Your task to perform on an android device: turn on javascript in the chrome app Image 0: 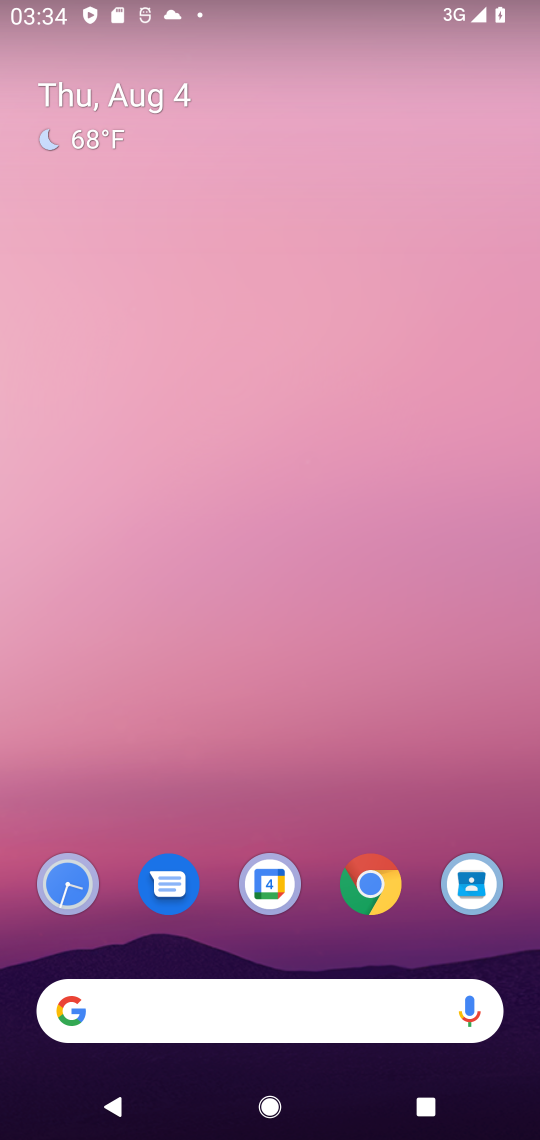
Step 0: press home button
Your task to perform on an android device: turn on javascript in the chrome app Image 1: 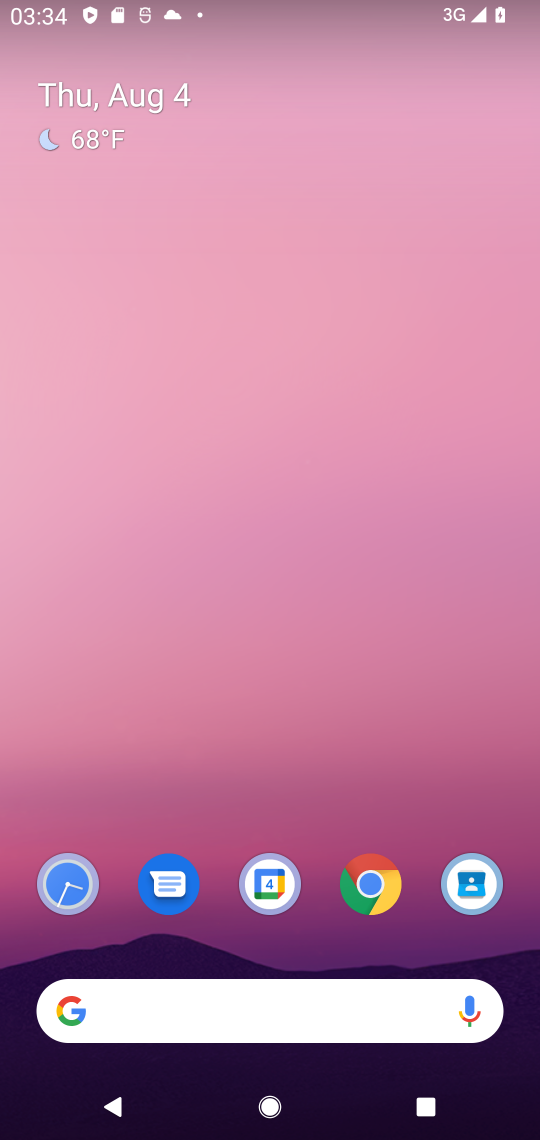
Step 1: drag from (304, 925) to (284, 367)
Your task to perform on an android device: turn on javascript in the chrome app Image 2: 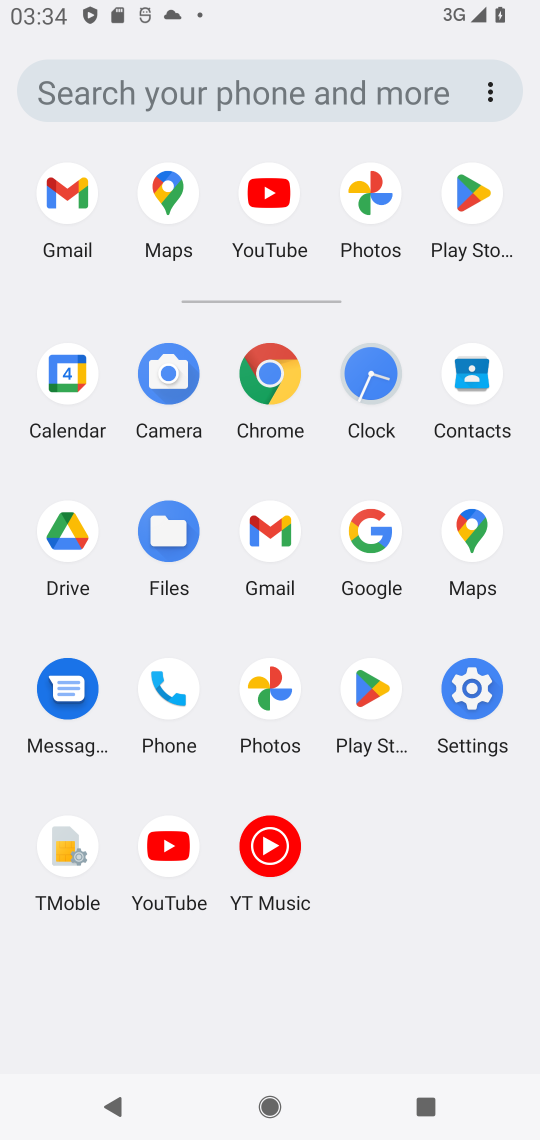
Step 2: click (273, 392)
Your task to perform on an android device: turn on javascript in the chrome app Image 3: 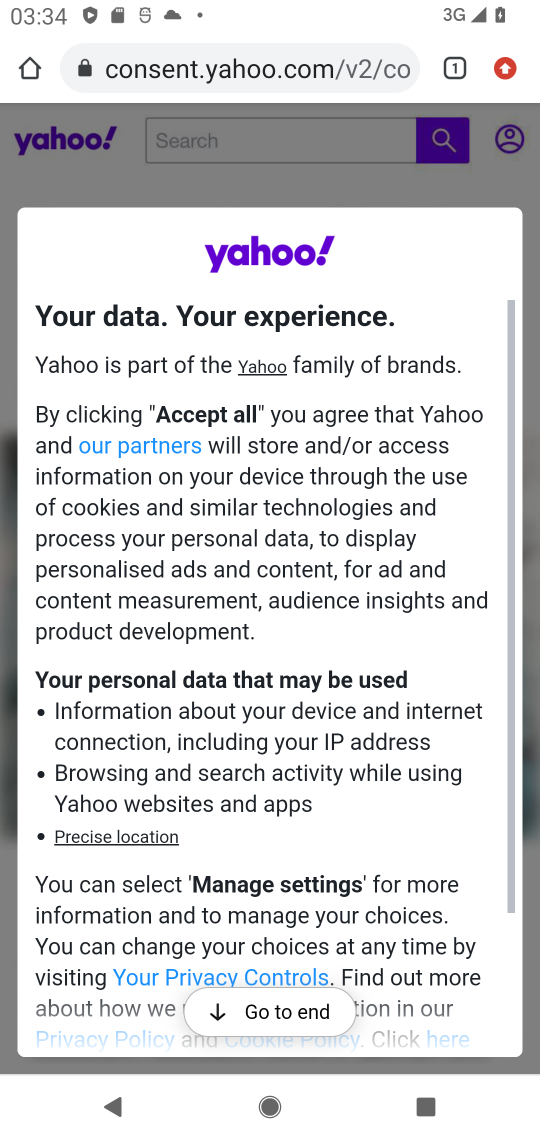
Step 3: click (500, 63)
Your task to perform on an android device: turn on javascript in the chrome app Image 4: 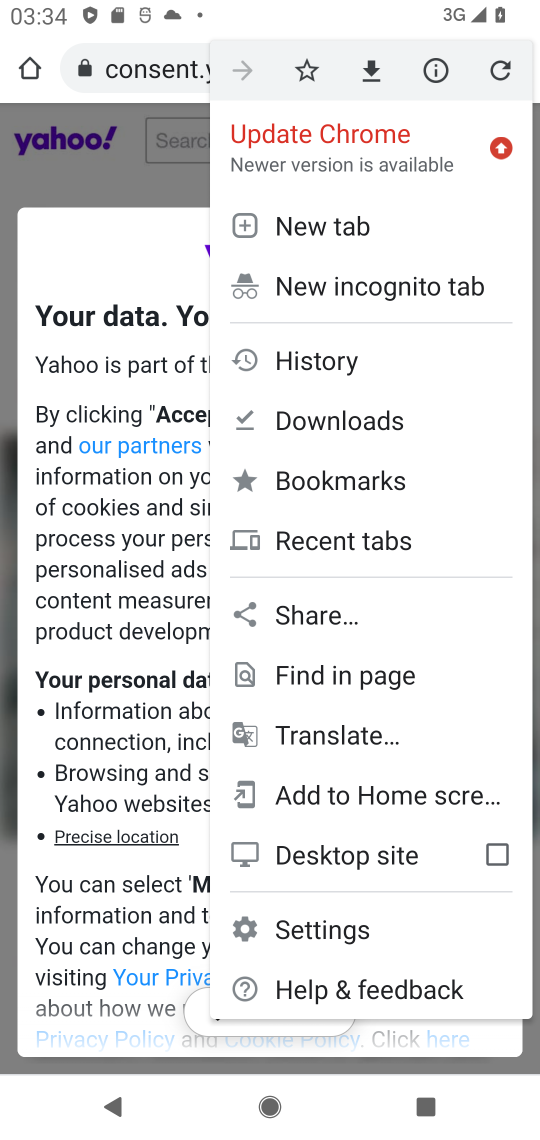
Step 4: click (360, 924)
Your task to perform on an android device: turn on javascript in the chrome app Image 5: 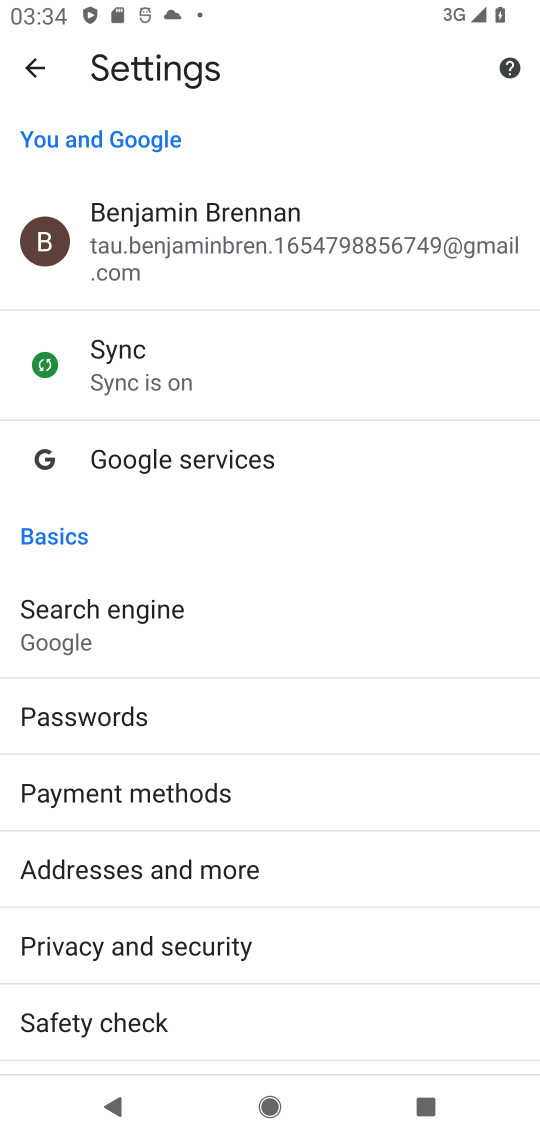
Step 5: drag from (407, 974) to (404, 847)
Your task to perform on an android device: turn on javascript in the chrome app Image 6: 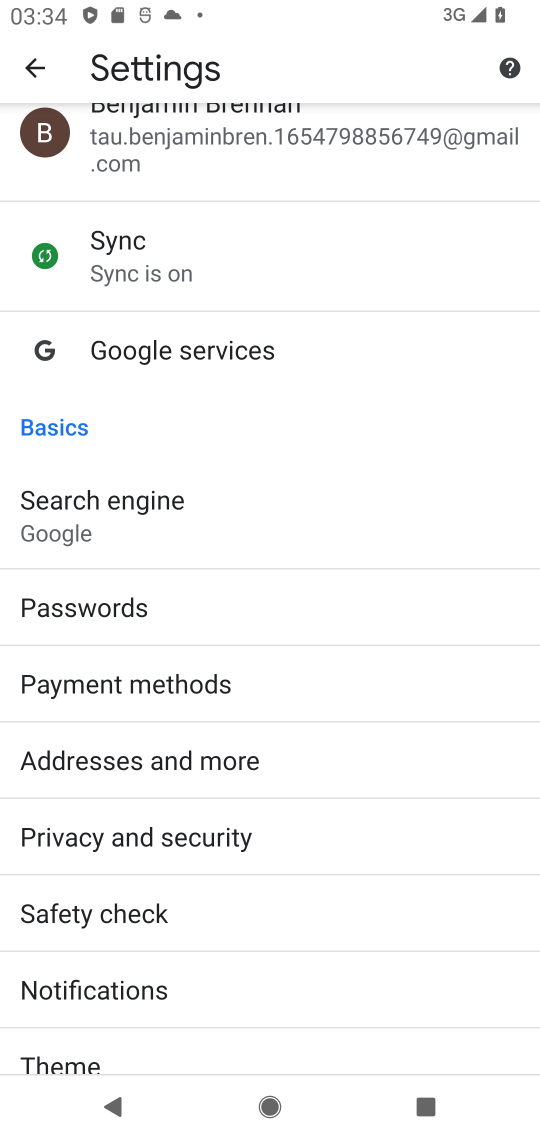
Step 6: drag from (404, 999) to (394, 802)
Your task to perform on an android device: turn on javascript in the chrome app Image 7: 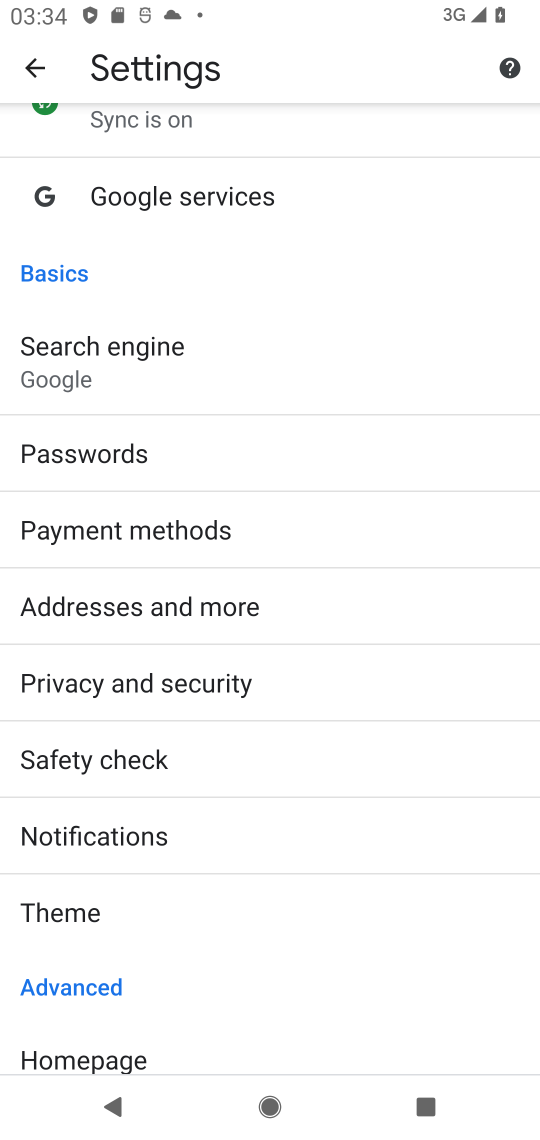
Step 7: click (387, 873)
Your task to perform on an android device: turn on javascript in the chrome app Image 8: 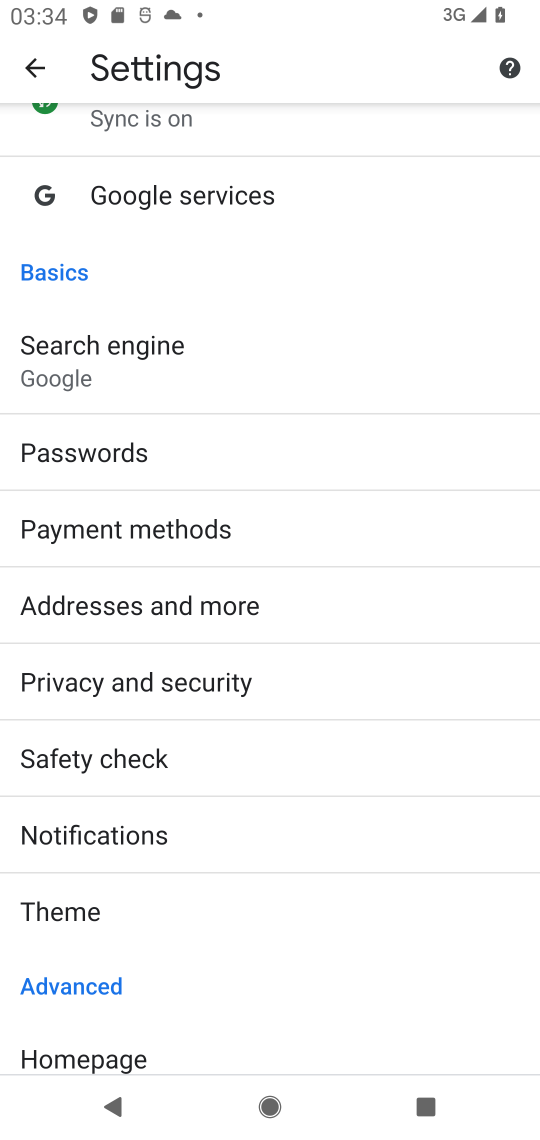
Step 8: drag from (387, 995) to (413, 719)
Your task to perform on an android device: turn on javascript in the chrome app Image 9: 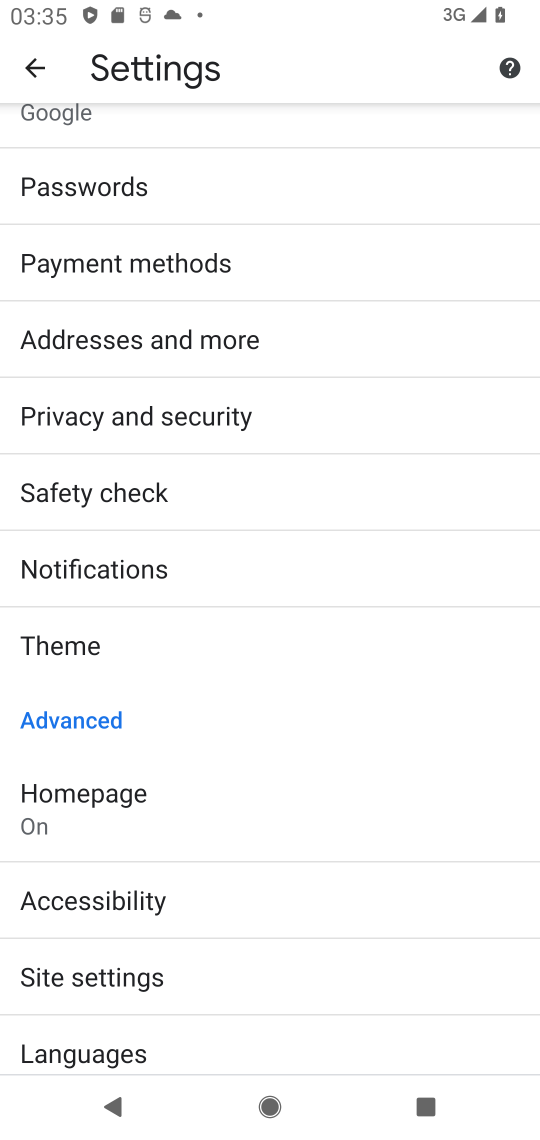
Step 9: click (322, 980)
Your task to perform on an android device: turn on javascript in the chrome app Image 10: 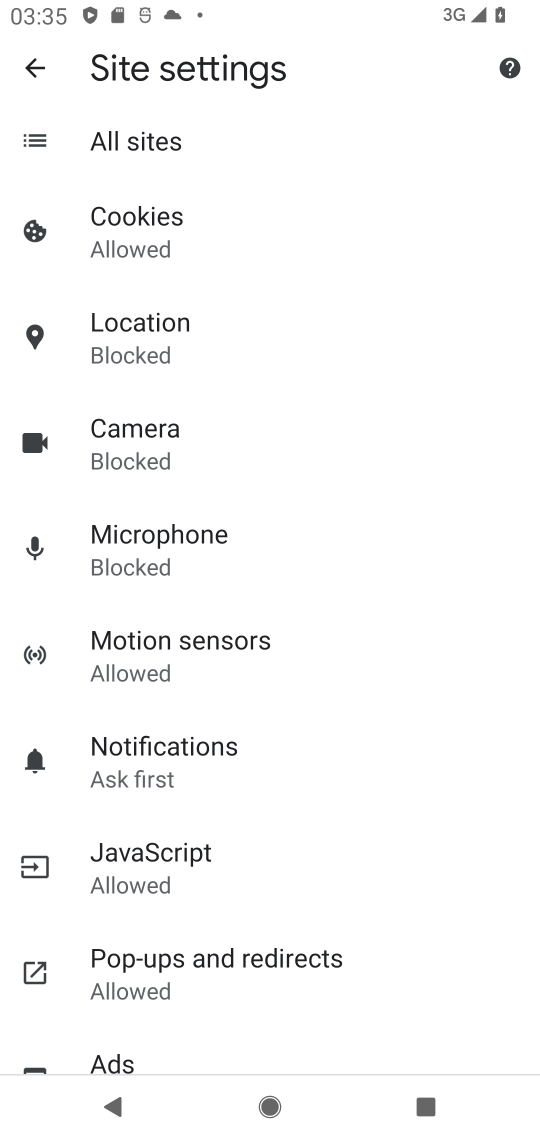
Step 10: click (283, 865)
Your task to perform on an android device: turn on javascript in the chrome app Image 11: 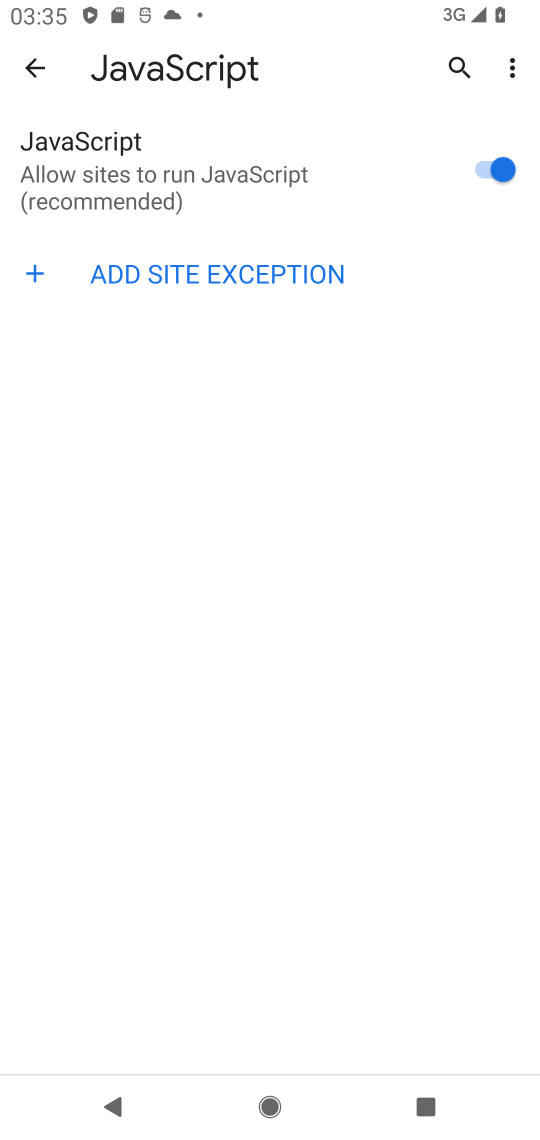
Step 11: task complete